Your task to perform on an android device: delete a single message in the gmail app Image 0: 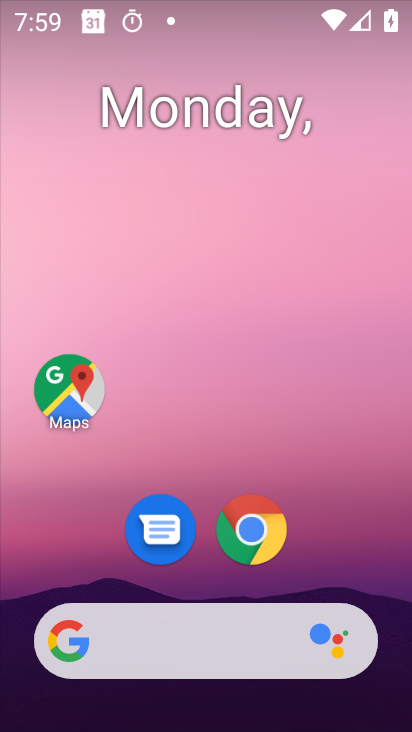
Step 0: press home button
Your task to perform on an android device: delete a single message in the gmail app Image 1: 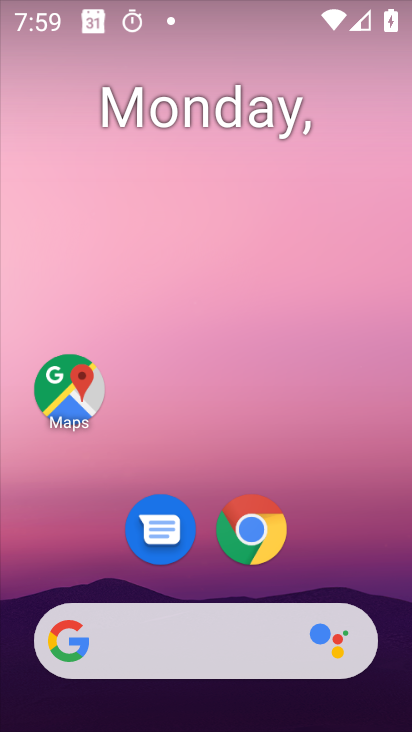
Step 1: drag from (59, 503) to (213, 211)
Your task to perform on an android device: delete a single message in the gmail app Image 2: 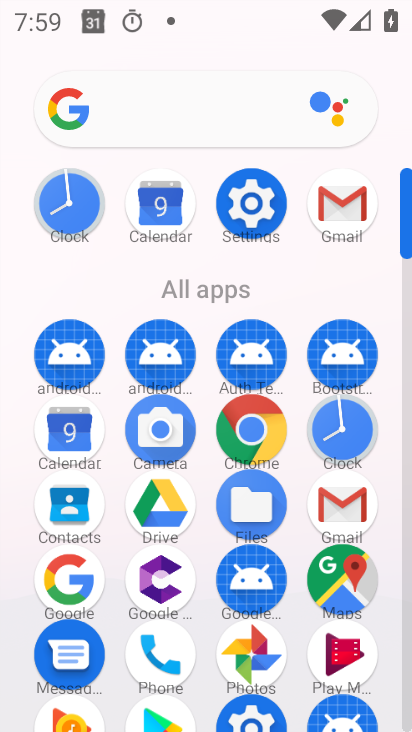
Step 2: click (343, 193)
Your task to perform on an android device: delete a single message in the gmail app Image 3: 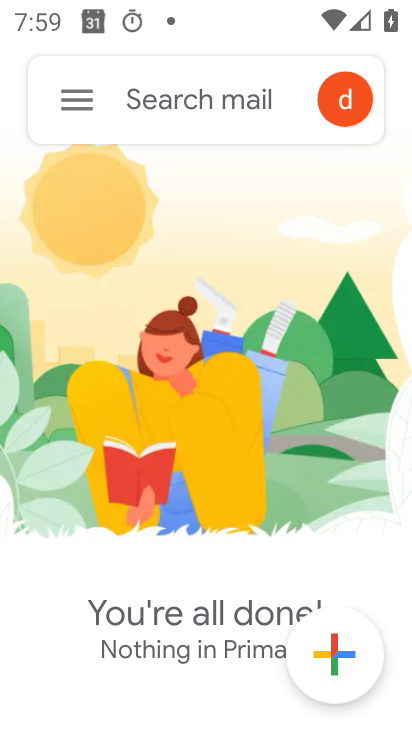
Step 3: task complete